Your task to perform on an android device: Go to Google Image 0: 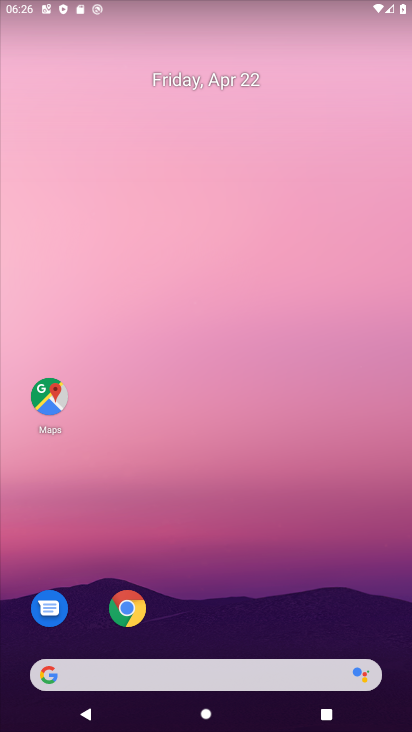
Step 0: click (198, 198)
Your task to perform on an android device: Go to Google Image 1: 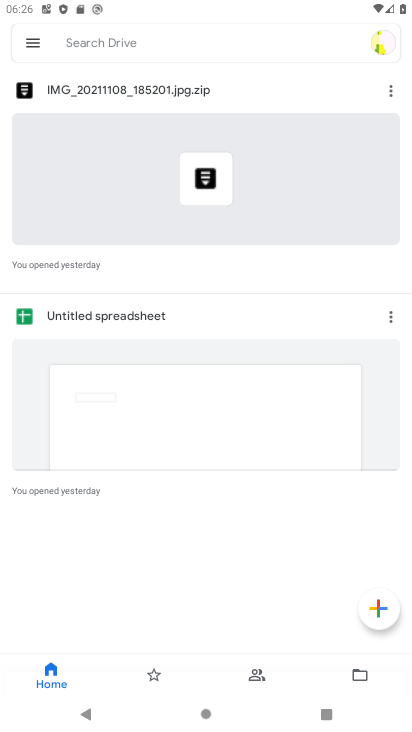
Step 1: press home button
Your task to perform on an android device: Go to Google Image 2: 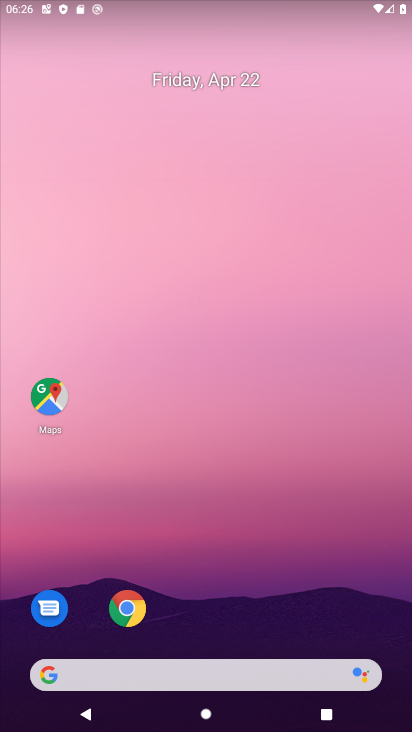
Step 2: click (135, 613)
Your task to perform on an android device: Go to Google Image 3: 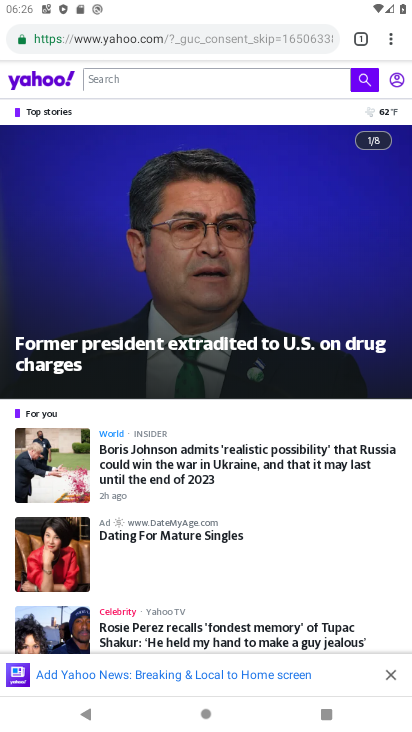
Step 3: task complete